Your task to perform on an android device: Show me recent news Image 0: 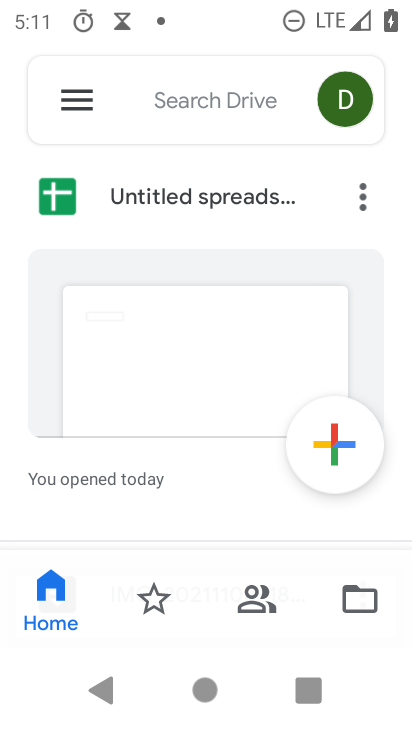
Step 0: press home button
Your task to perform on an android device: Show me recent news Image 1: 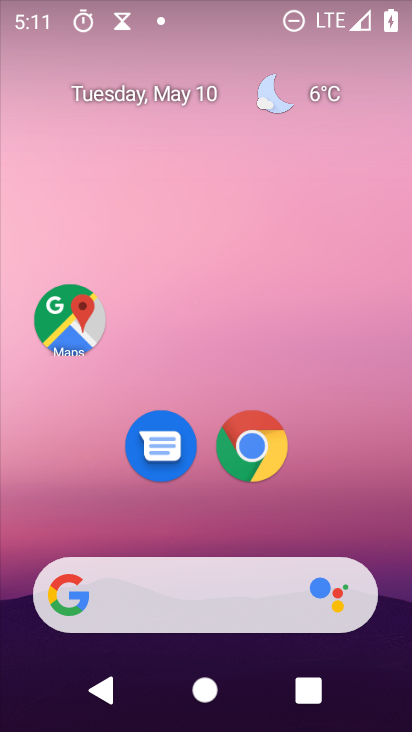
Step 1: drag from (206, 521) to (165, 101)
Your task to perform on an android device: Show me recent news Image 2: 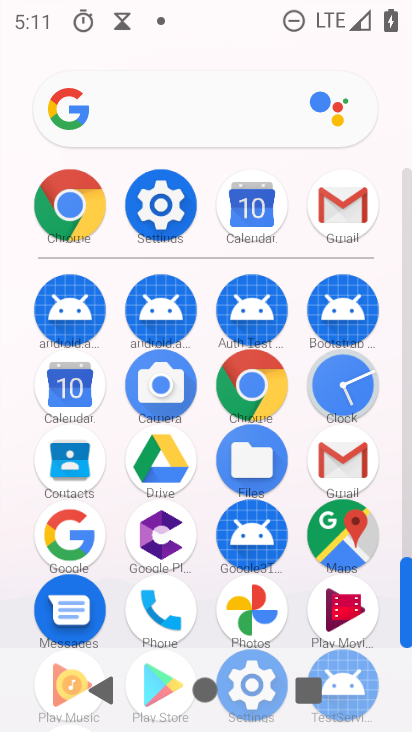
Step 2: click (68, 532)
Your task to perform on an android device: Show me recent news Image 3: 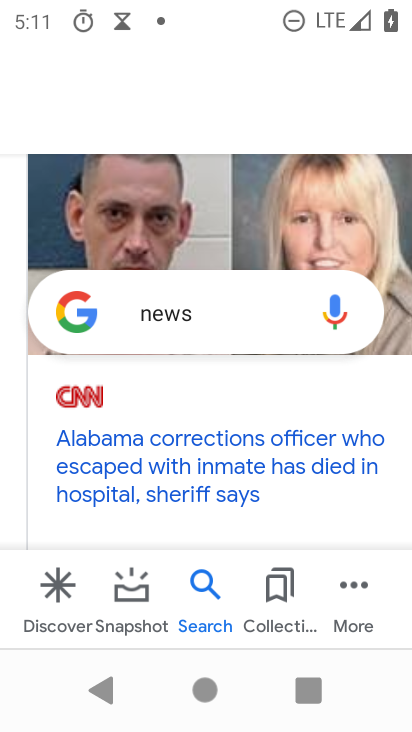
Step 3: drag from (210, 478) to (213, 143)
Your task to perform on an android device: Show me recent news Image 4: 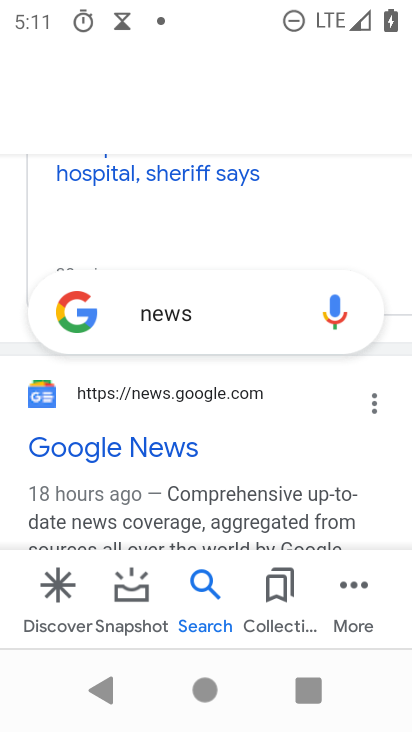
Step 4: drag from (183, 442) to (180, 150)
Your task to perform on an android device: Show me recent news Image 5: 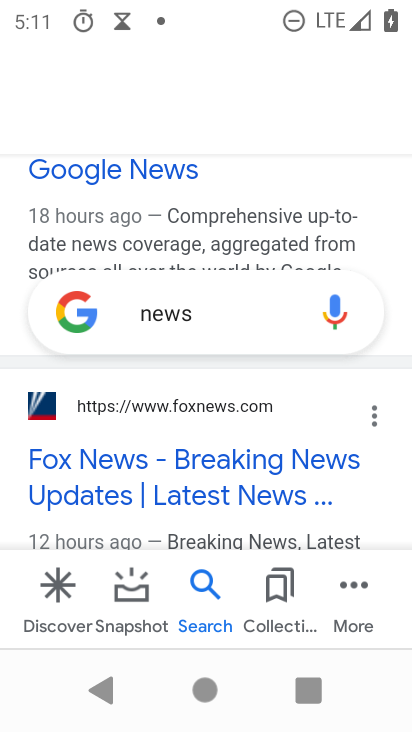
Step 5: drag from (166, 176) to (177, 585)
Your task to perform on an android device: Show me recent news Image 6: 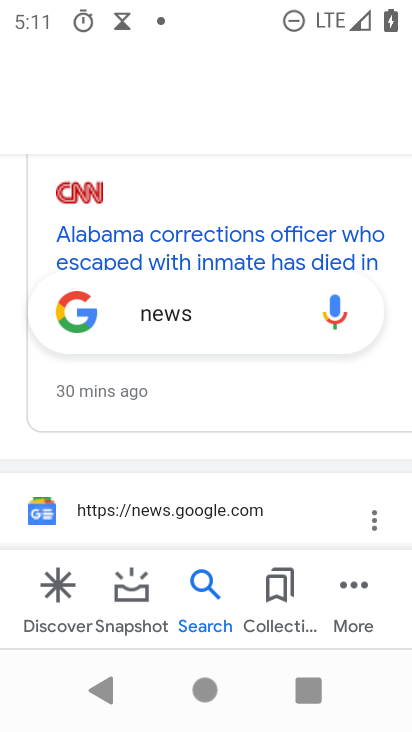
Step 6: drag from (166, 246) to (173, 612)
Your task to perform on an android device: Show me recent news Image 7: 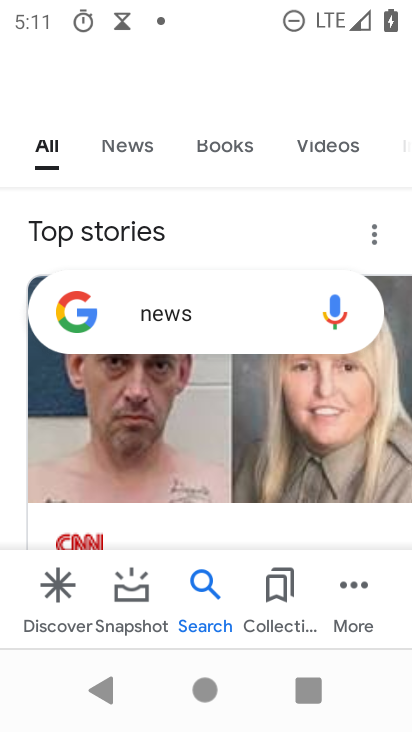
Step 7: click (129, 152)
Your task to perform on an android device: Show me recent news Image 8: 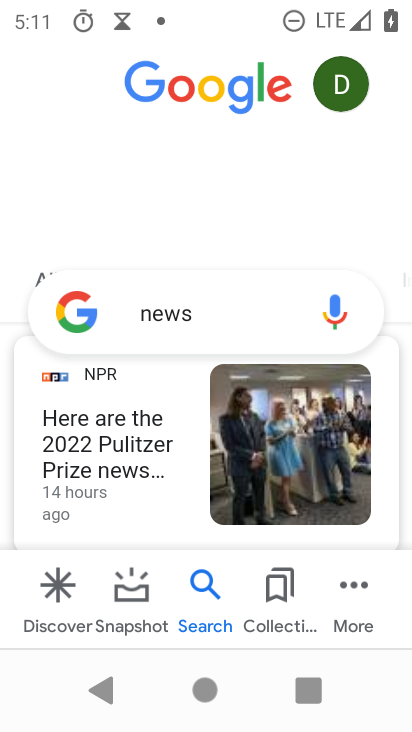
Step 8: task complete